Your task to perform on an android device: Open Android settings Image 0: 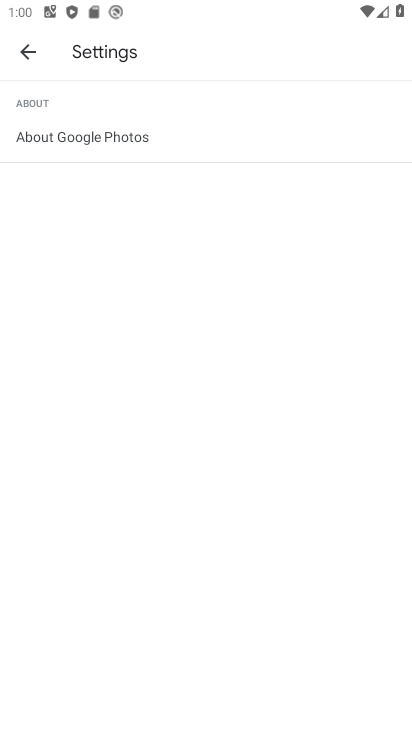
Step 0: press home button
Your task to perform on an android device: Open Android settings Image 1: 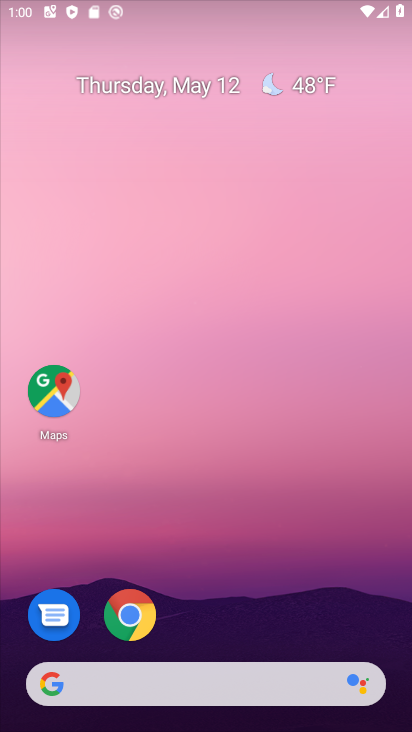
Step 1: drag from (226, 682) to (272, 63)
Your task to perform on an android device: Open Android settings Image 2: 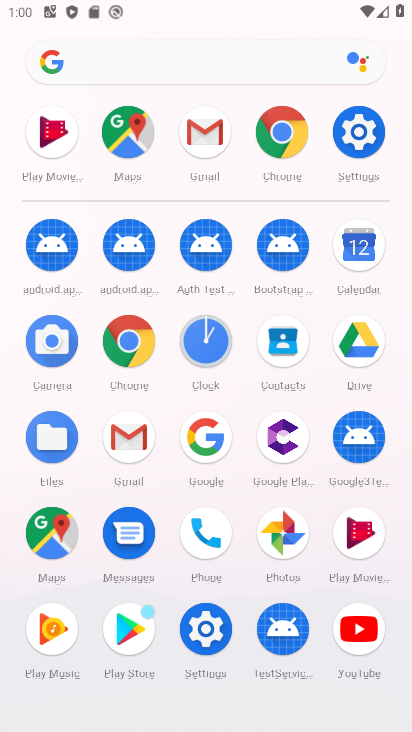
Step 2: click (366, 132)
Your task to perform on an android device: Open Android settings Image 3: 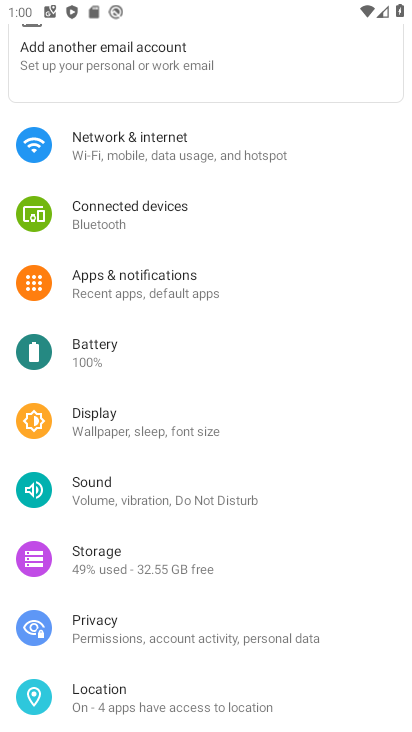
Step 3: drag from (180, 670) to (247, 144)
Your task to perform on an android device: Open Android settings Image 4: 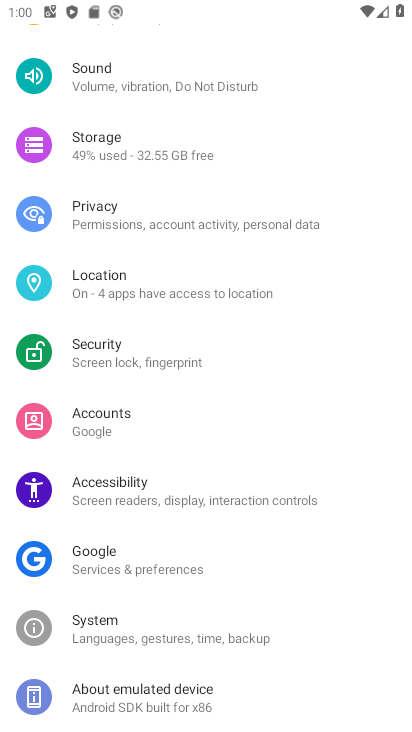
Step 4: click (159, 701)
Your task to perform on an android device: Open Android settings Image 5: 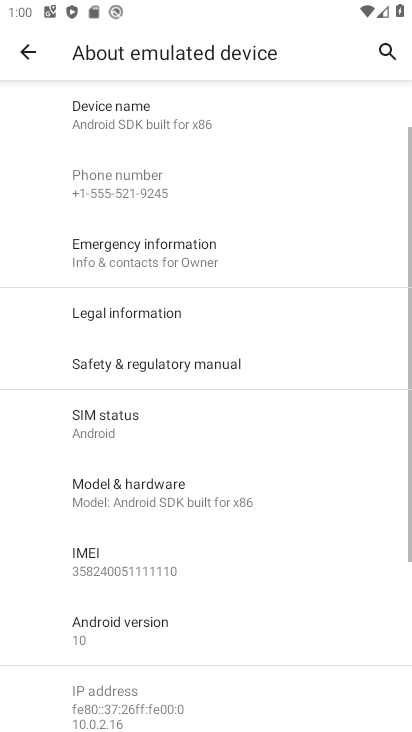
Step 5: drag from (195, 682) to (208, 557)
Your task to perform on an android device: Open Android settings Image 6: 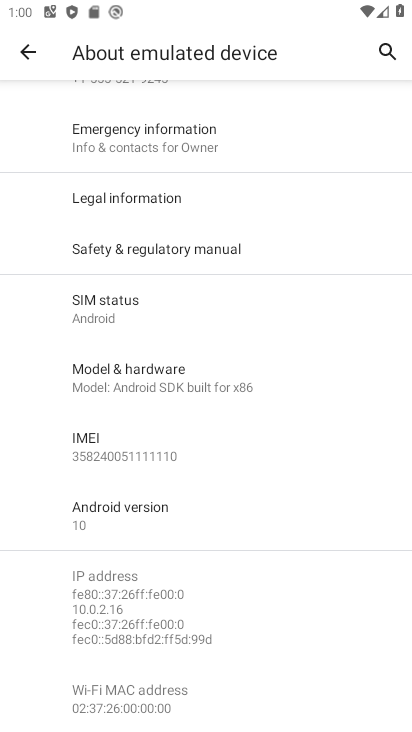
Step 6: click (163, 532)
Your task to perform on an android device: Open Android settings Image 7: 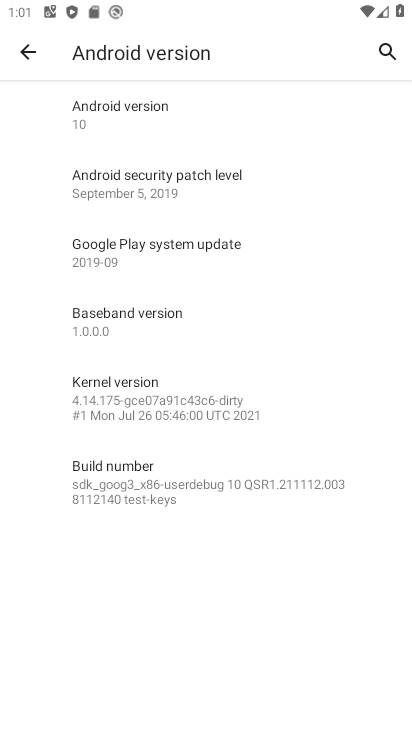
Step 7: task complete